Your task to perform on an android device: What's the weather going to be tomorrow? Image 0: 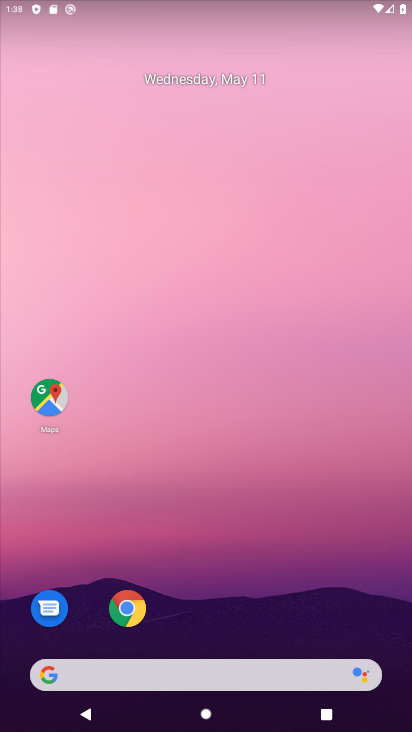
Step 0: drag from (275, 625) to (262, 356)
Your task to perform on an android device: What's the weather going to be tomorrow? Image 1: 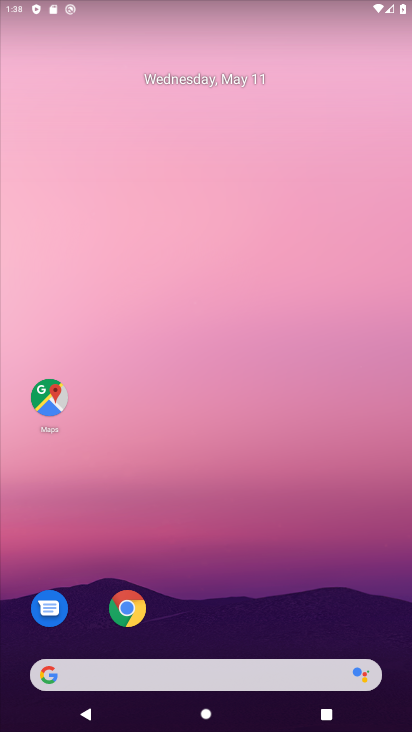
Step 1: task complete